Your task to perform on an android device: Search for sushi restaurants on Maps Image 0: 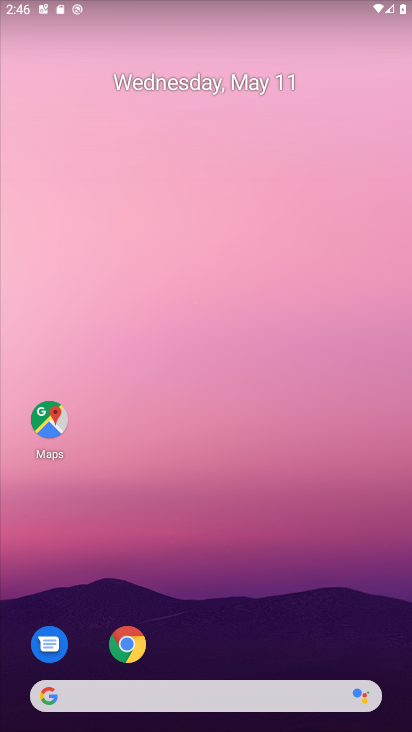
Step 0: click (45, 401)
Your task to perform on an android device: Search for sushi restaurants on Maps Image 1: 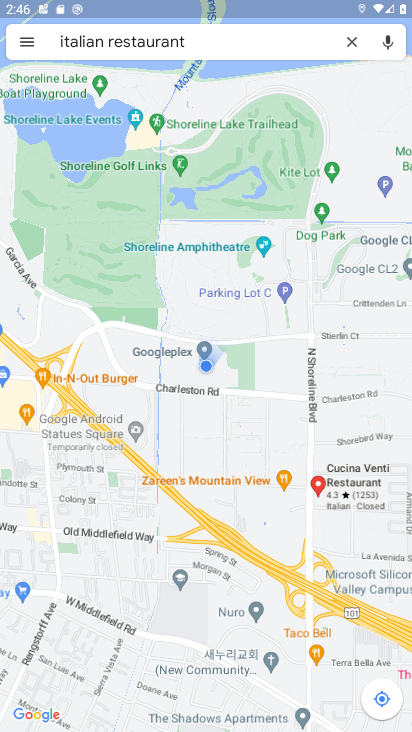
Step 1: click (261, 32)
Your task to perform on an android device: Search for sushi restaurants on Maps Image 2: 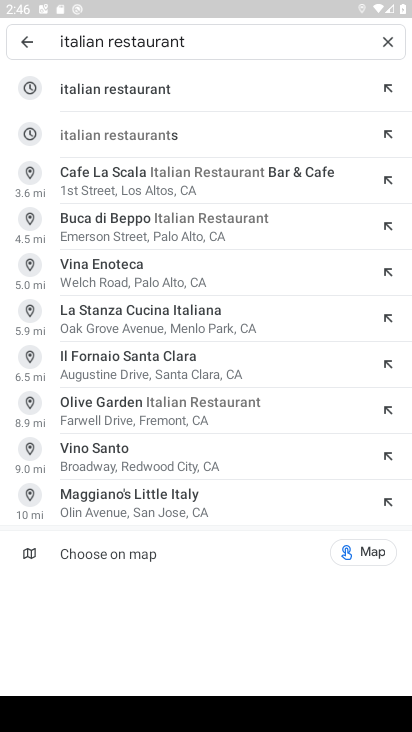
Step 2: click (385, 42)
Your task to perform on an android device: Search for sushi restaurants on Maps Image 3: 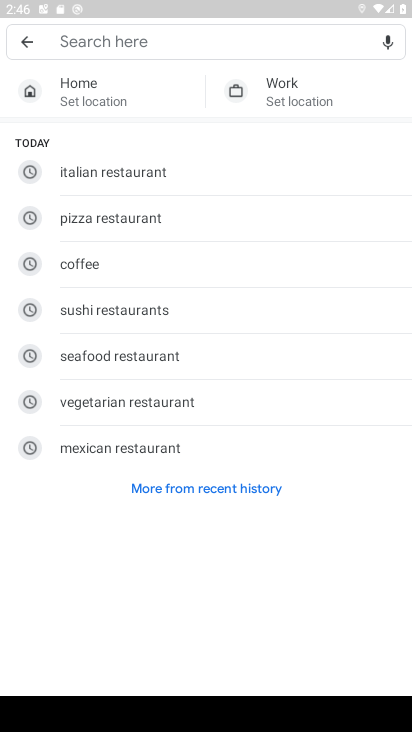
Step 3: click (124, 303)
Your task to perform on an android device: Search for sushi restaurants on Maps Image 4: 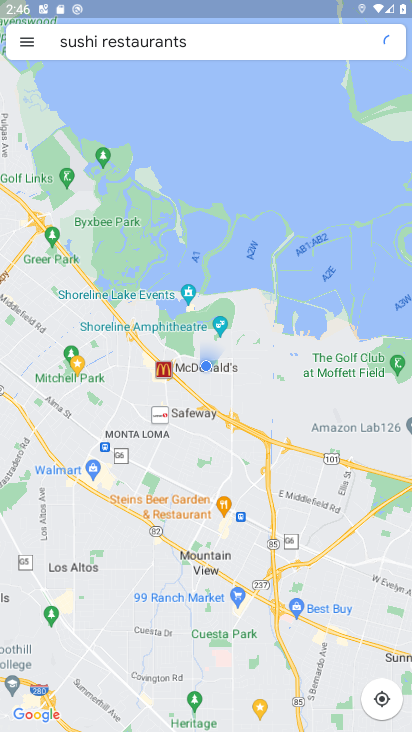
Step 4: task complete